Your task to perform on an android device: Open the stopwatch Image 0: 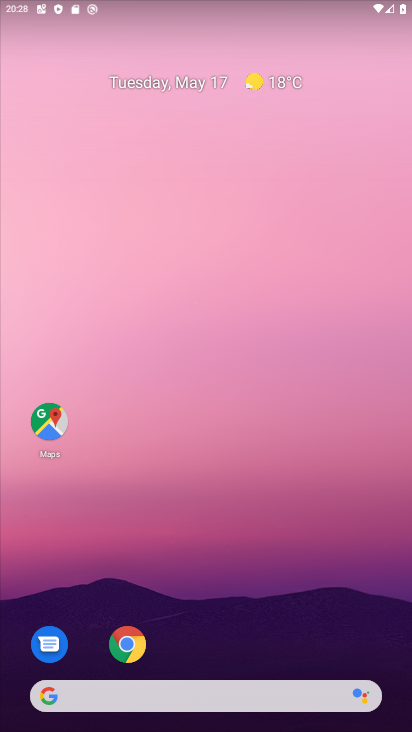
Step 0: drag from (183, 643) to (322, 85)
Your task to perform on an android device: Open the stopwatch Image 1: 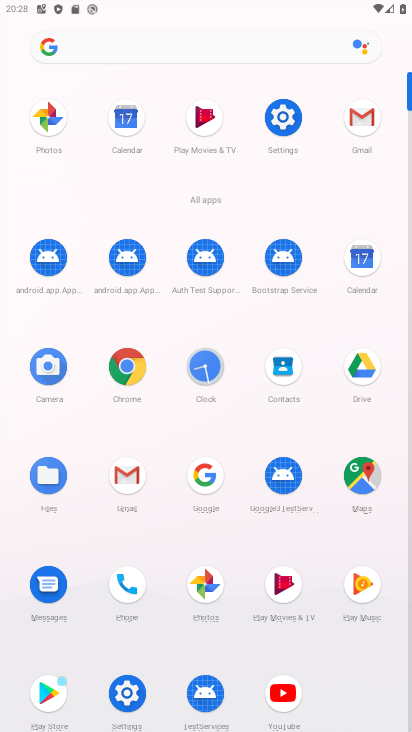
Step 1: click (206, 369)
Your task to perform on an android device: Open the stopwatch Image 2: 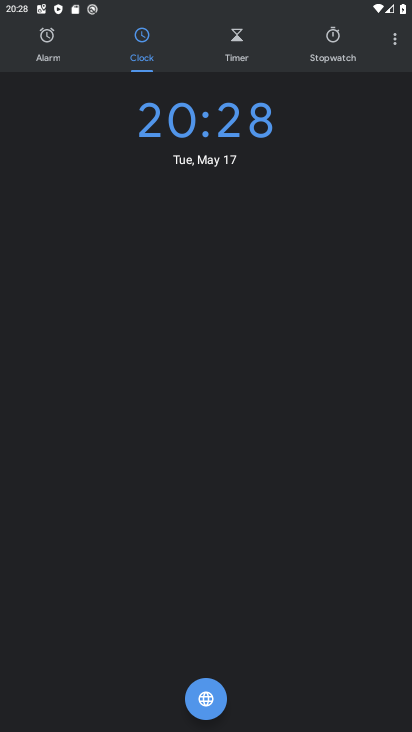
Step 2: click (338, 47)
Your task to perform on an android device: Open the stopwatch Image 3: 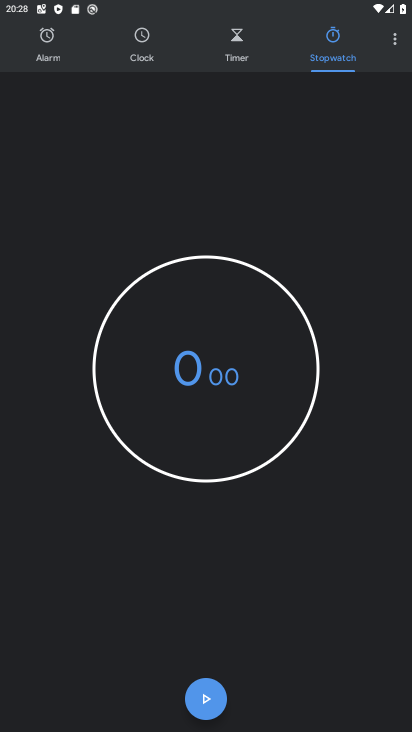
Step 3: task complete